Your task to perform on an android device: Open eBay Image 0: 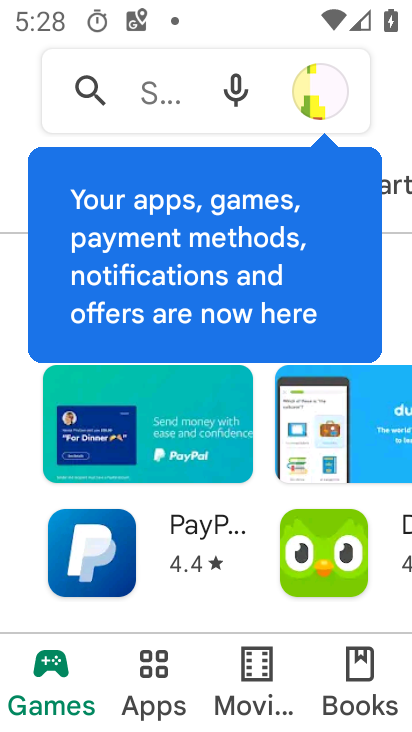
Step 0: press home button
Your task to perform on an android device: Open eBay Image 1: 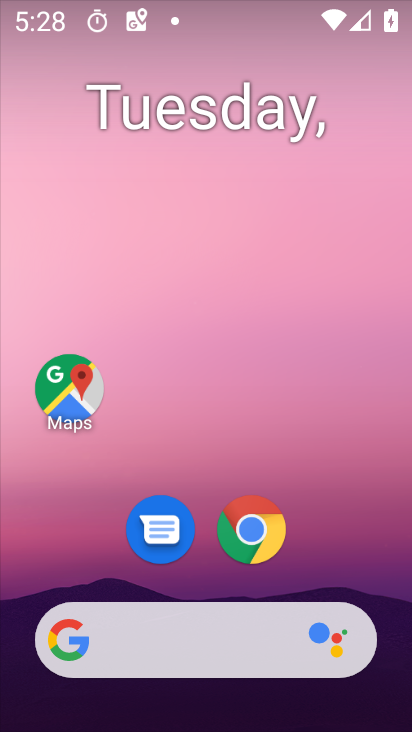
Step 1: click (246, 522)
Your task to perform on an android device: Open eBay Image 2: 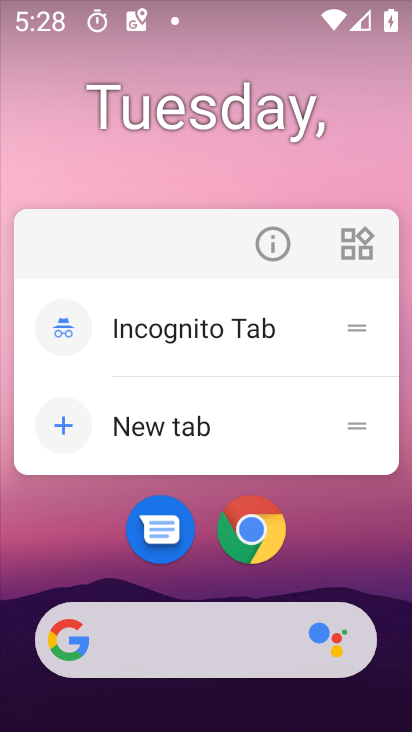
Step 2: click (241, 529)
Your task to perform on an android device: Open eBay Image 3: 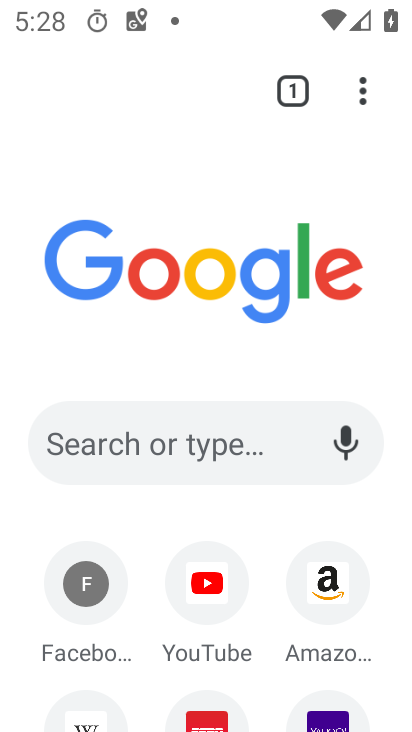
Step 3: click (176, 426)
Your task to perform on an android device: Open eBay Image 4: 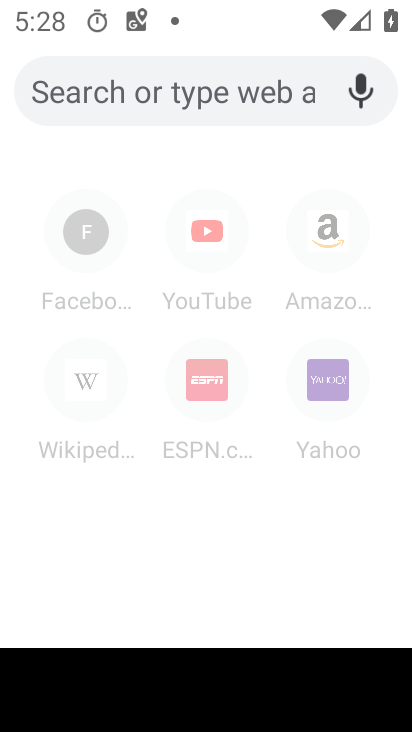
Step 4: type "eBay"
Your task to perform on an android device: Open eBay Image 5: 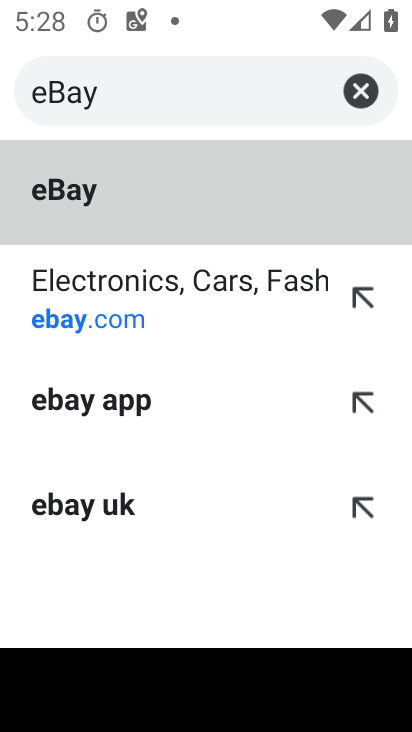
Step 5: click (82, 194)
Your task to perform on an android device: Open eBay Image 6: 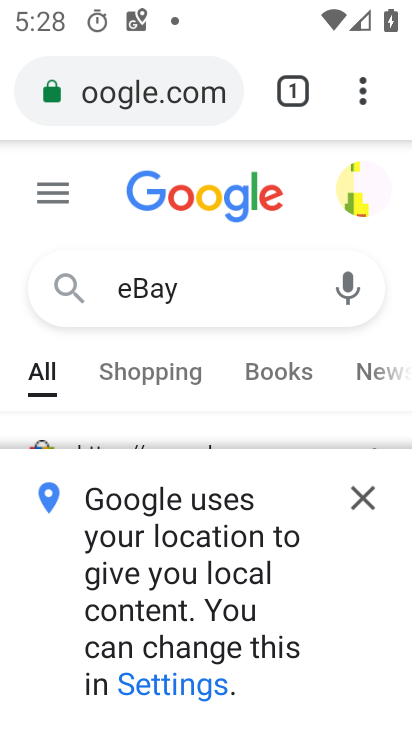
Step 6: task complete